Your task to perform on an android device: empty trash in google photos Image 0: 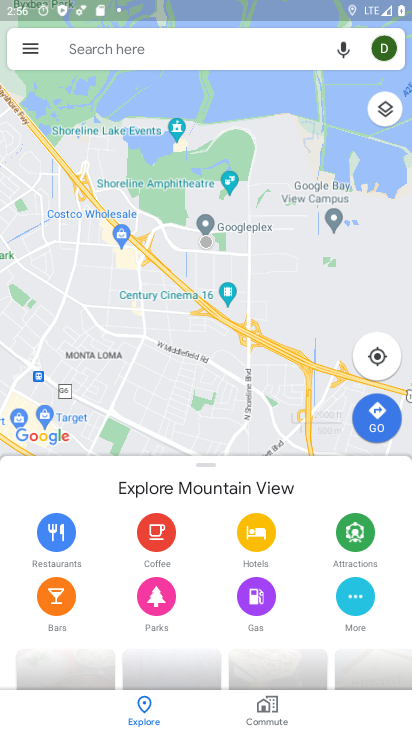
Step 0: press home button
Your task to perform on an android device: empty trash in google photos Image 1: 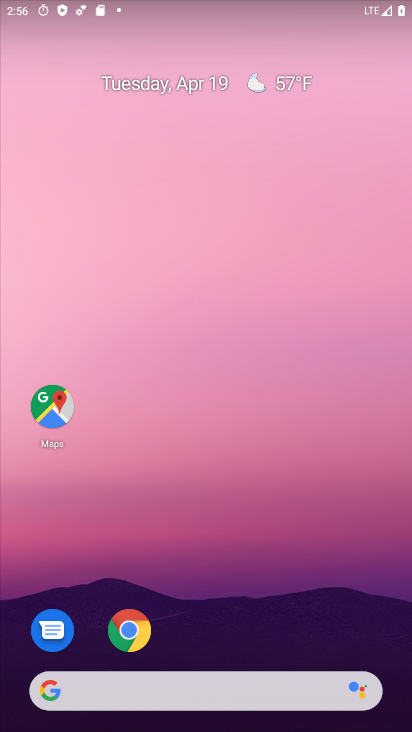
Step 1: drag from (219, 625) to (228, 94)
Your task to perform on an android device: empty trash in google photos Image 2: 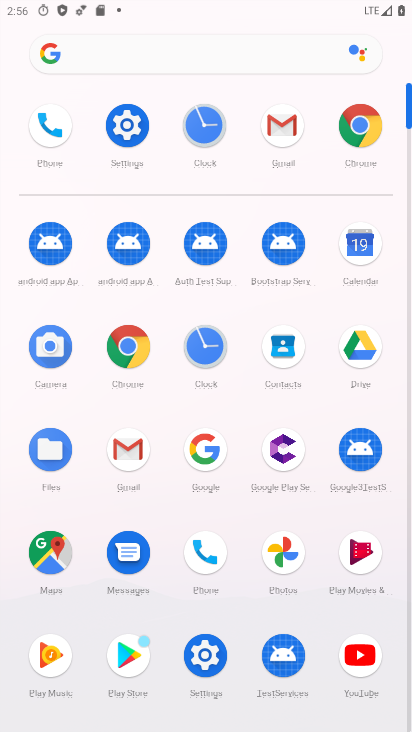
Step 2: click (287, 542)
Your task to perform on an android device: empty trash in google photos Image 3: 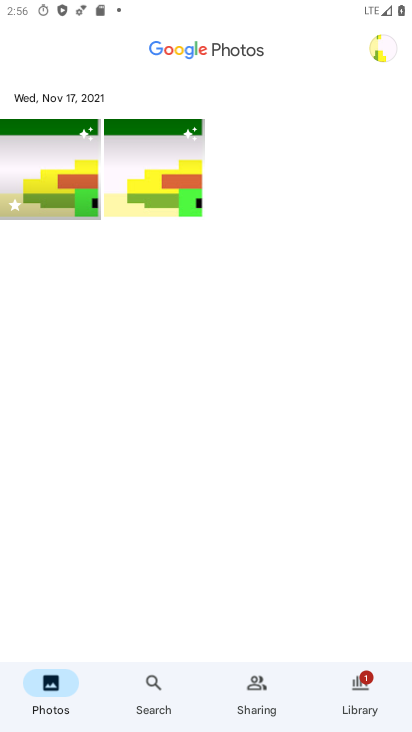
Step 3: click (55, 692)
Your task to perform on an android device: empty trash in google photos Image 4: 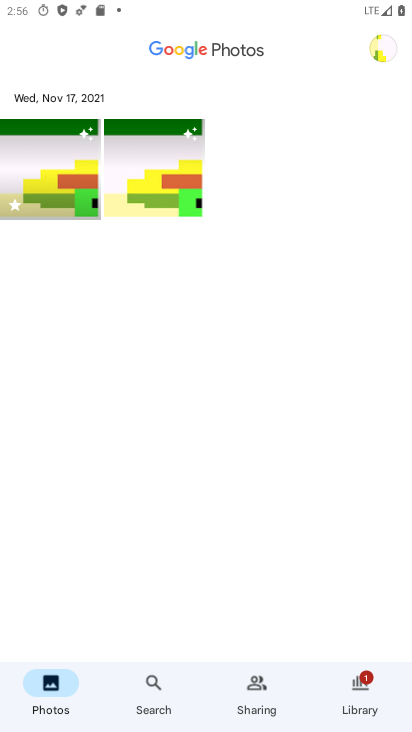
Step 4: click (150, 689)
Your task to perform on an android device: empty trash in google photos Image 5: 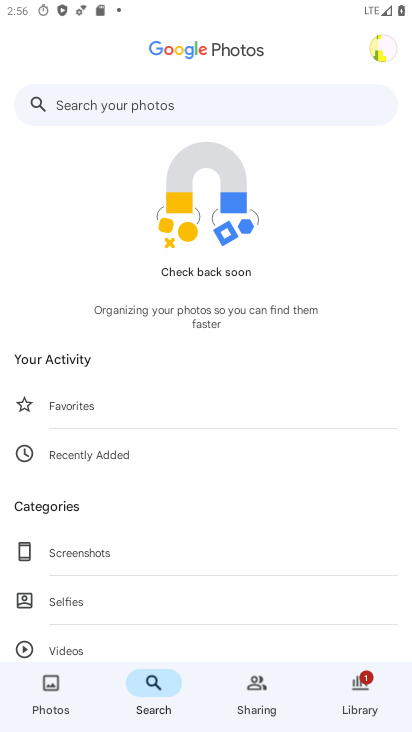
Step 5: drag from (198, 544) to (193, 254)
Your task to perform on an android device: empty trash in google photos Image 6: 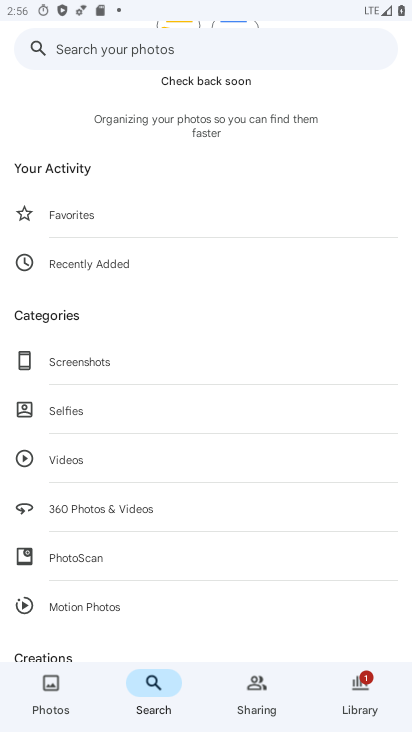
Step 6: drag from (137, 571) to (145, 211)
Your task to perform on an android device: empty trash in google photos Image 7: 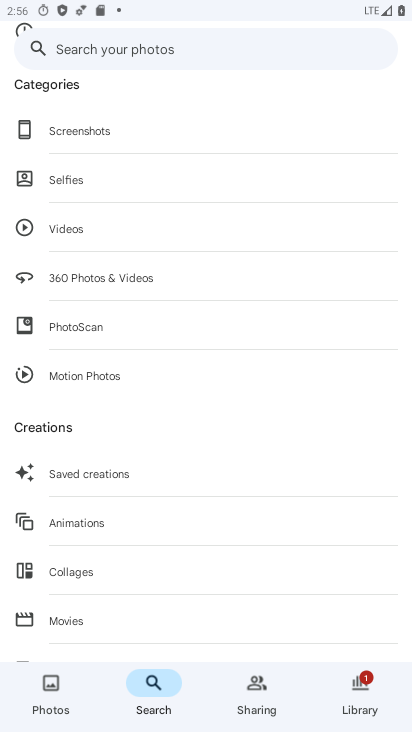
Step 7: drag from (122, 587) to (127, 178)
Your task to perform on an android device: empty trash in google photos Image 8: 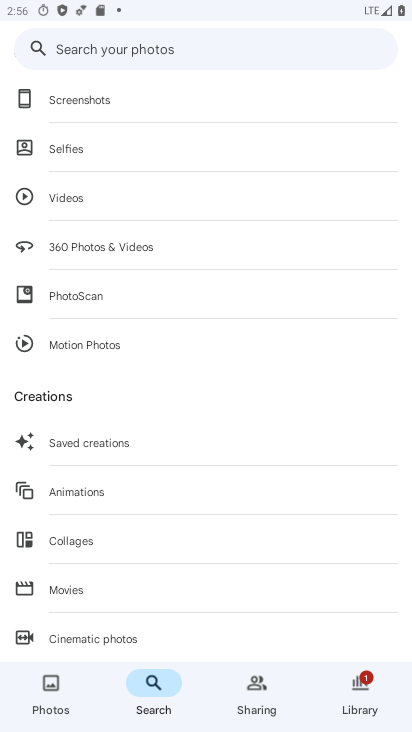
Step 8: drag from (105, 575) to (121, 260)
Your task to perform on an android device: empty trash in google photos Image 9: 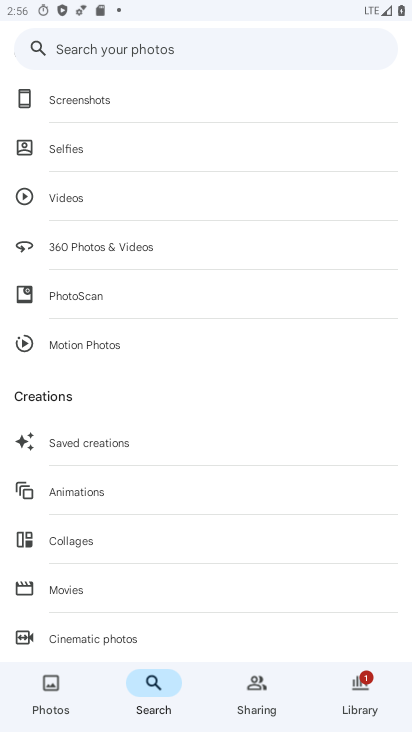
Step 9: drag from (135, 145) to (95, 709)
Your task to perform on an android device: empty trash in google photos Image 10: 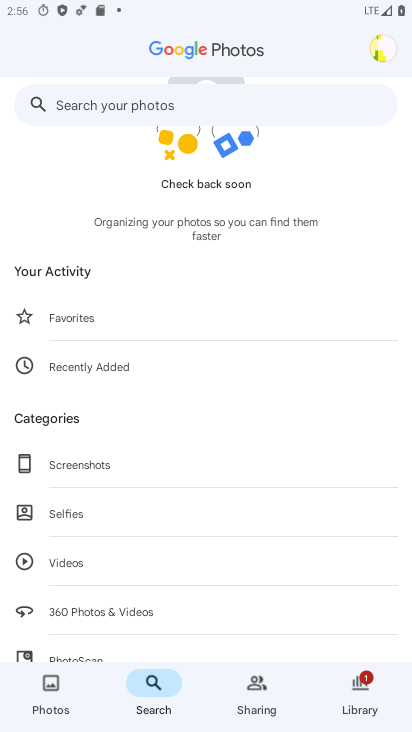
Step 10: click (349, 689)
Your task to perform on an android device: empty trash in google photos Image 11: 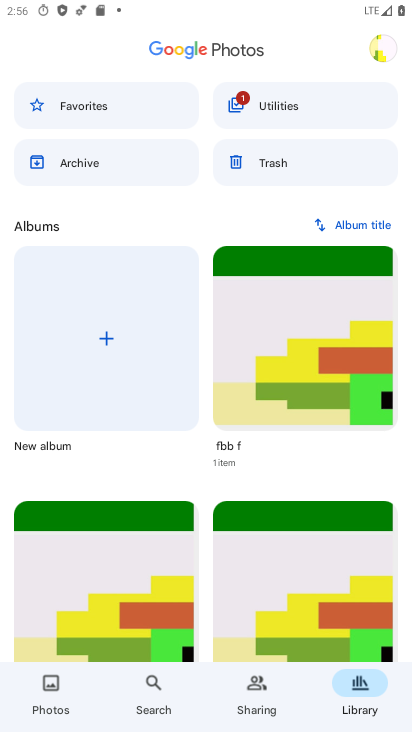
Step 11: click (262, 153)
Your task to perform on an android device: empty trash in google photos Image 12: 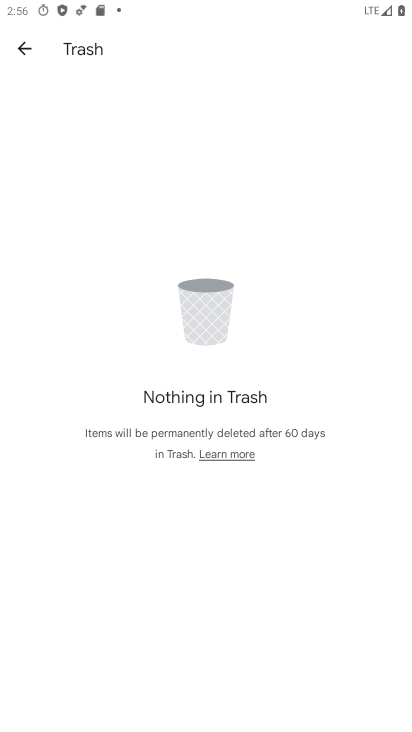
Step 12: task complete